Your task to perform on an android device: turn on wifi Image 0: 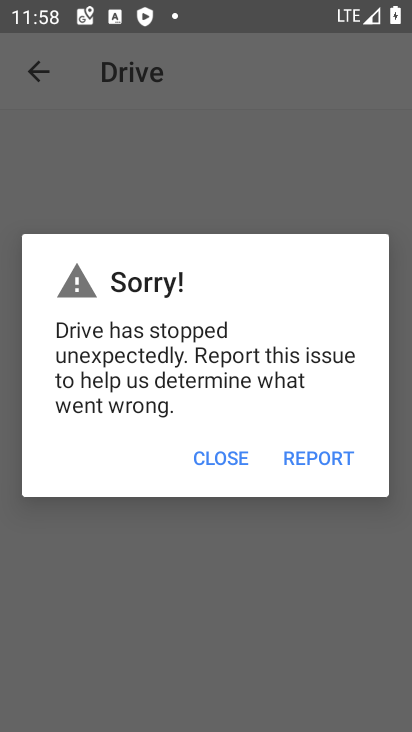
Step 0: press home button
Your task to perform on an android device: turn on wifi Image 1: 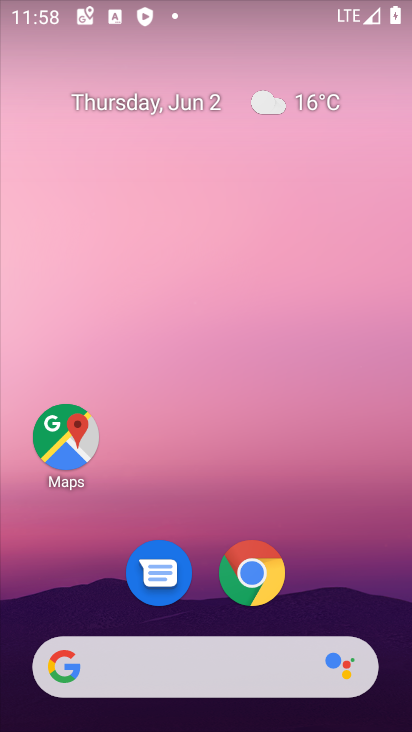
Step 1: drag from (318, 571) to (187, 10)
Your task to perform on an android device: turn on wifi Image 2: 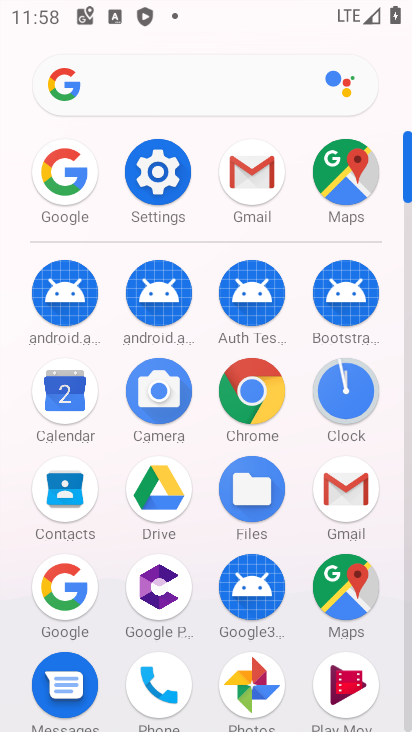
Step 2: click (139, 188)
Your task to perform on an android device: turn on wifi Image 3: 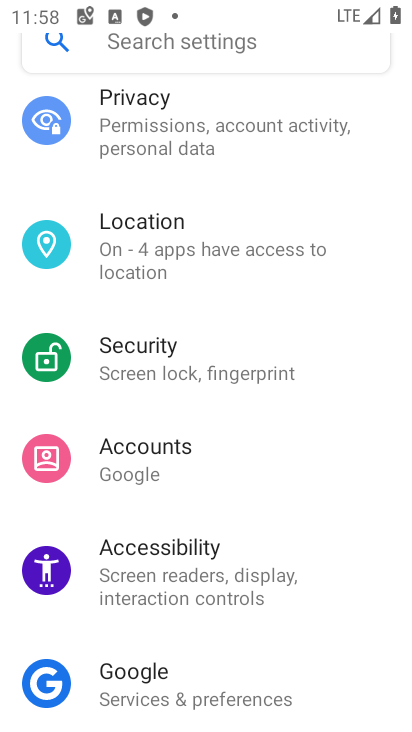
Step 3: drag from (139, 188) to (207, 640)
Your task to perform on an android device: turn on wifi Image 4: 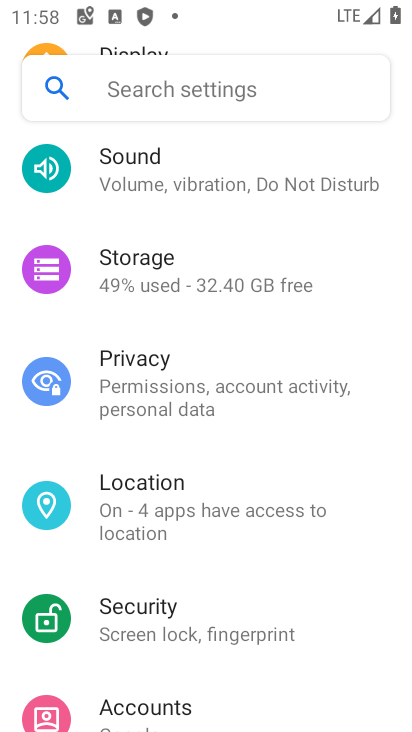
Step 4: drag from (197, 197) to (265, 614)
Your task to perform on an android device: turn on wifi Image 5: 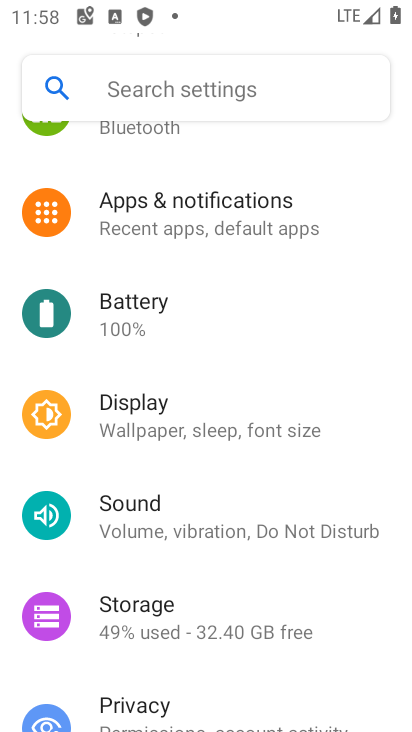
Step 5: drag from (212, 221) to (296, 671)
Your task to perform on an android device: turn on wifi Image 6: 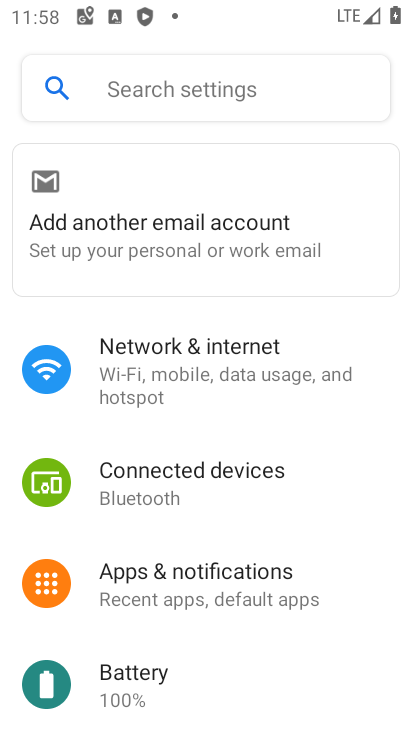
Step 6: click (213, 360)
Your task to perform on an android device: turn on wifi Image 7: 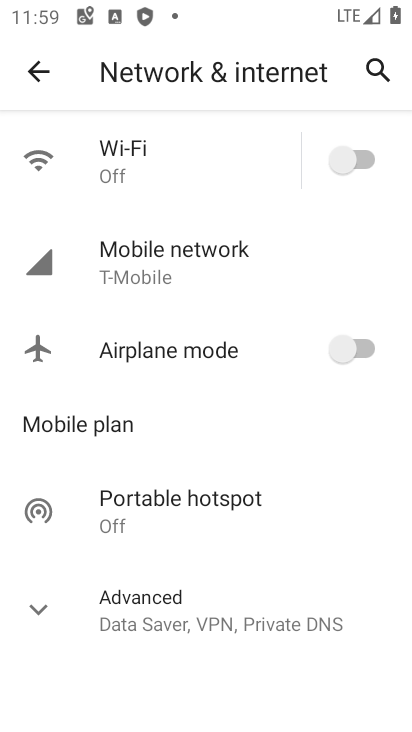
Step 7: click (341, 158)
Your task to perform on an android device: turn on wifi Image 8: 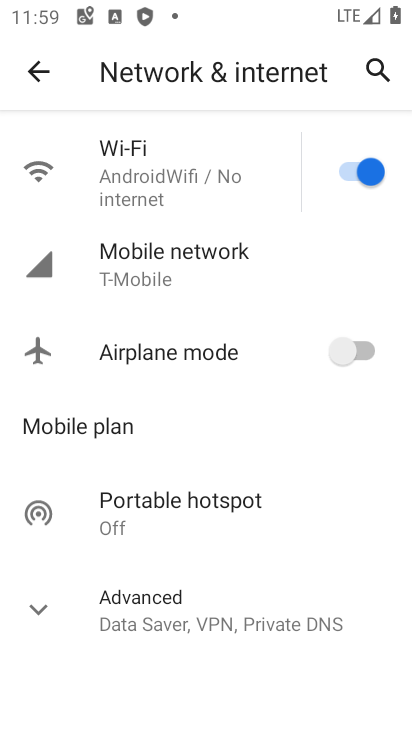
Step 8: task complete